Your task to perform on an android device: change the clock display to show seconds Image 0: 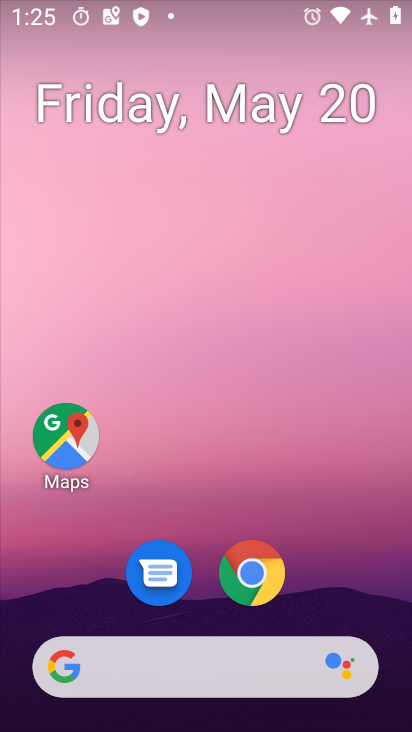
Step 0: drag from (330, 530) to (291, 138)
Your task to perform on an android device: change the clock display to show seconds Image 1: 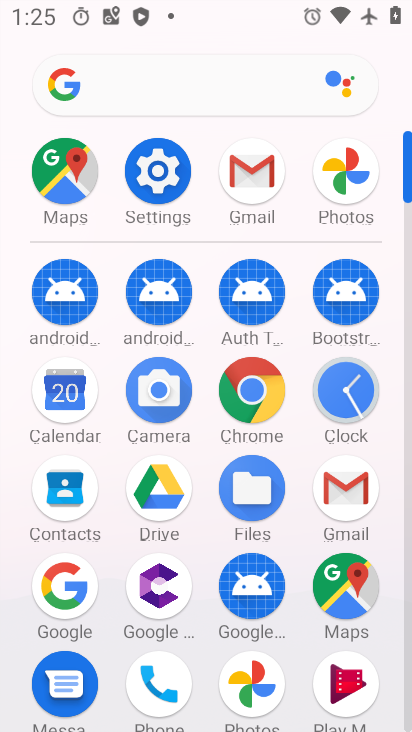
Step 1: click (355, 390)
Your task to perform on an android device: change the clock display to show seconds Image 2: 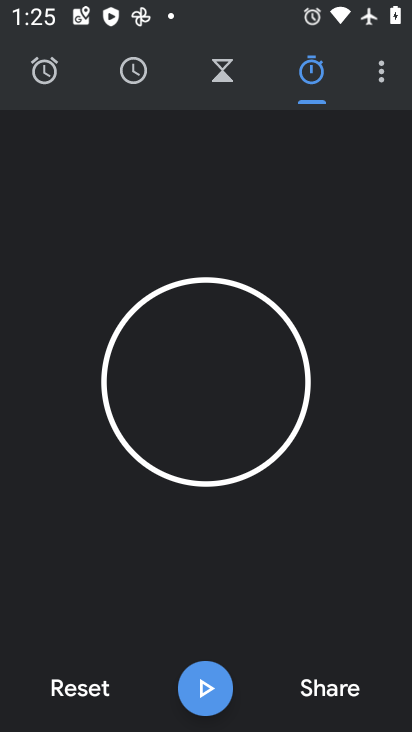
Step 2: click (376, 80)
Your task to perform on an android device: change the clock display to show seconds Image 3: 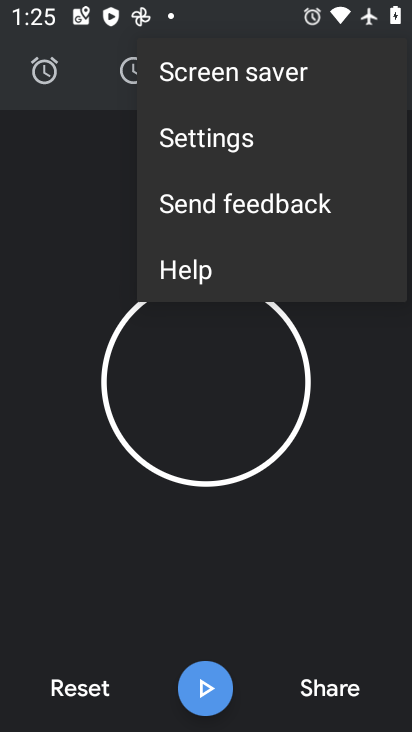
Step 3: click (258, 128)
Your task to perform on an android device: change the clock display to show seconds Image 4: 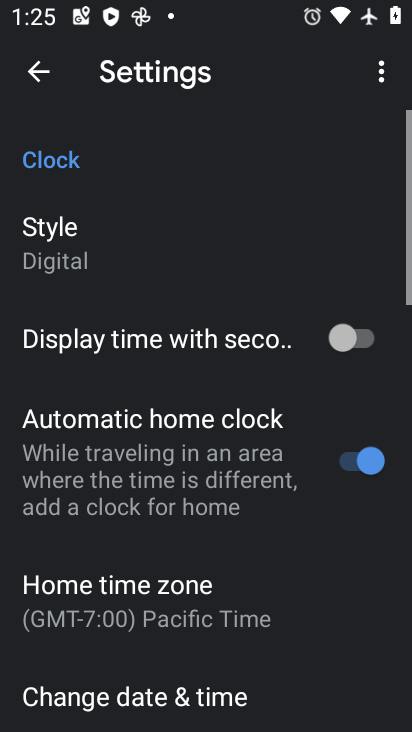
Step 4: drag from (113, 228) to (262, 55)
Your task to perform on an android device: change the clock display to show seconds Image 5: 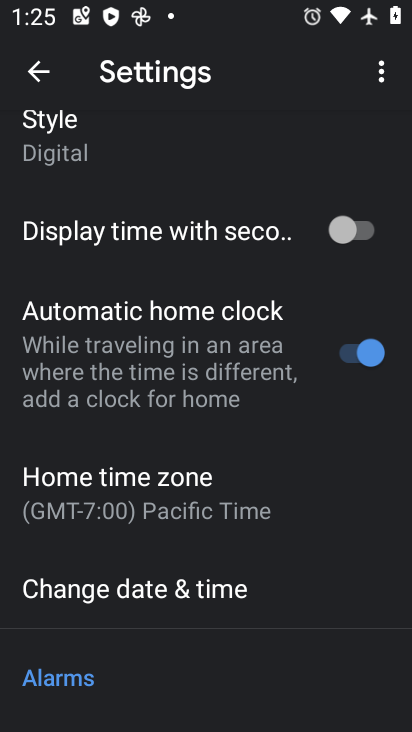
Step 5: click (353, 231)
Your task to perform on an android device: change the clock display to show seconds Image 6: 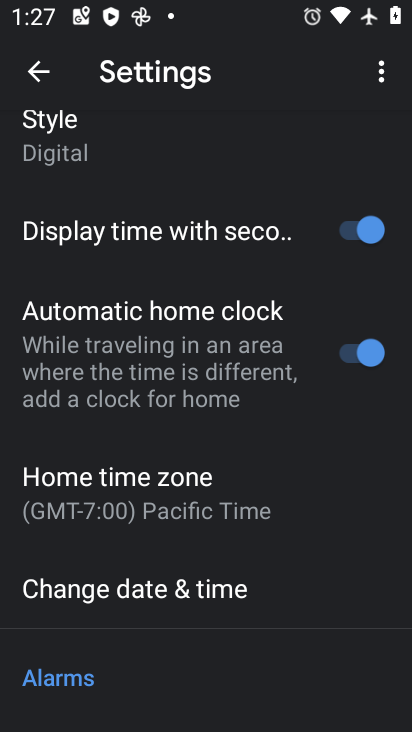
Step 6: task complete